Your task to perform on an android device: toggle notification dots Image 0: 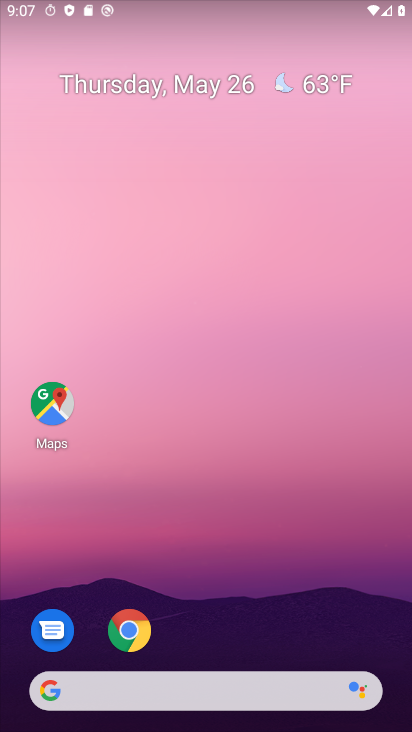
Step 0: drag from (274, 725) to (196, 83)
Your task to perform on an android device: toggle notification dots Image 1: 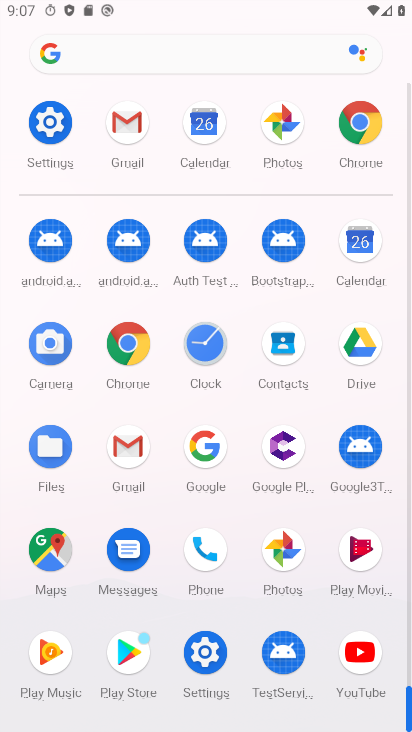
Step 1: click (208, 651)
Your task to perform on an android device: toggle notification dots Image 2: 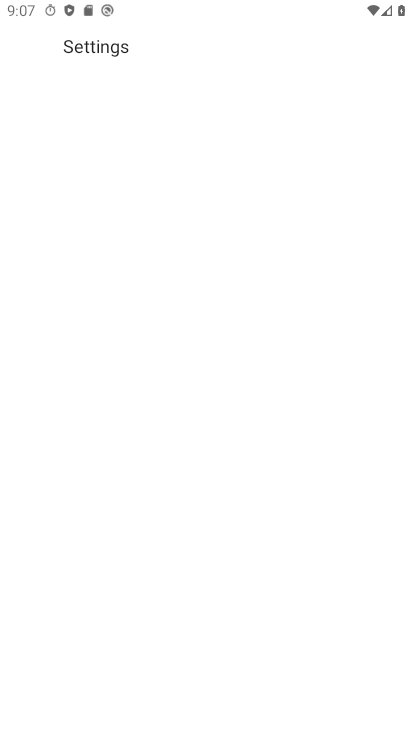
Step 2: click (209, 652)
Your task to perform on an android device: toggle notification dots Image 3: 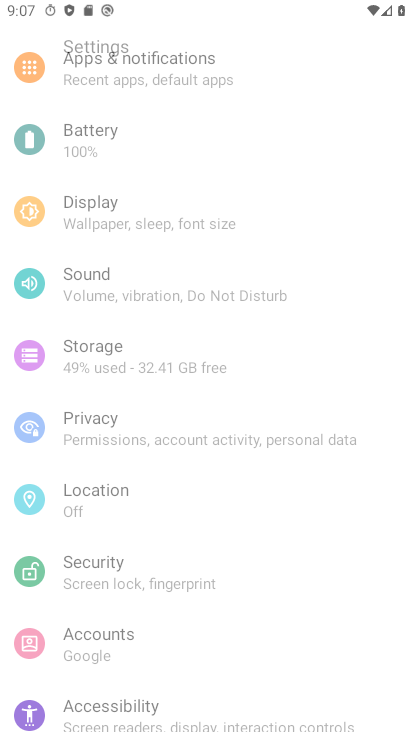
Step 3: click (209, 652)
Your task to perform on an android device: toggle notification dots Image 4: 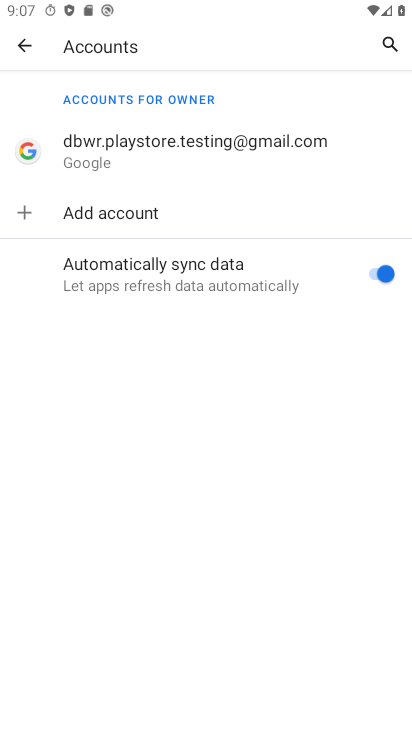
Step 4: click (24, 43)
Your task to perform on an android device: toggle notification dots Image 5: 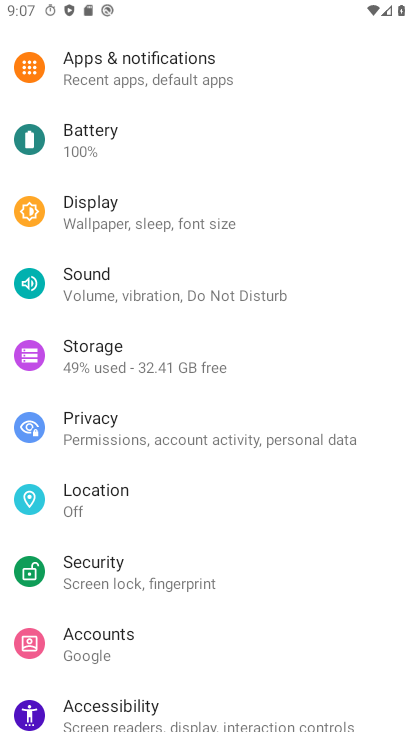
Step 5: click (87, 494)
Your task to perform on an android device: toggle notification dots Image 6: 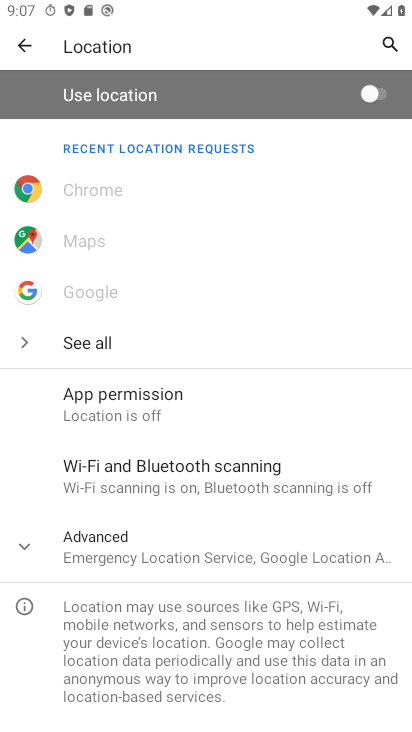
Step 6: click (377, 88)
Your task to perform on an android device: toggle notification dots Image 7: 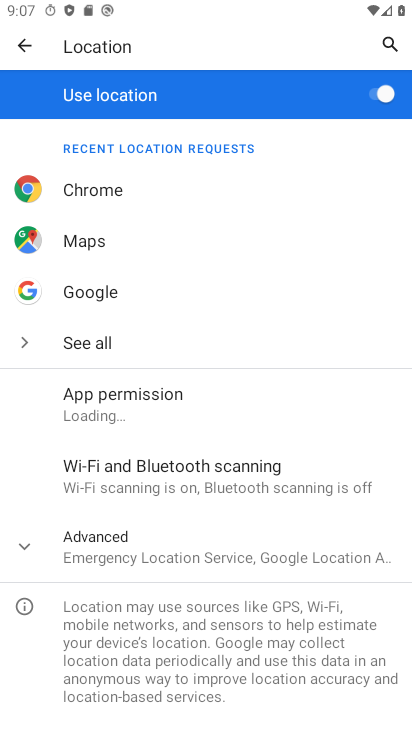
Step 7: task complete